Your task to perform on an android device: Search for Italian restaurants on Maps Image 0: 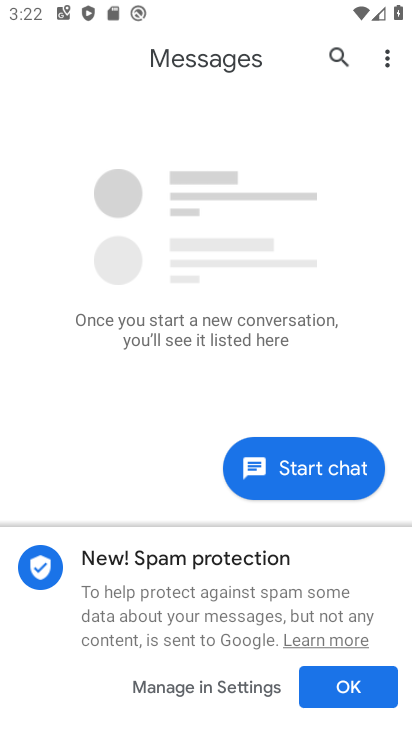
Step 0: press home button
Your task to perform on an android device: Search for Italian restaurants on Maps Image 1: 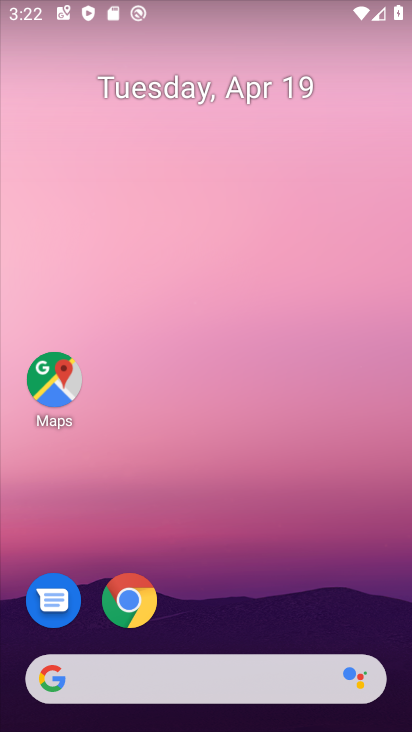
Step 1: click (67, 382)
Your task to perform on an android device: Search for Italian restaurants on Maps Image 2: 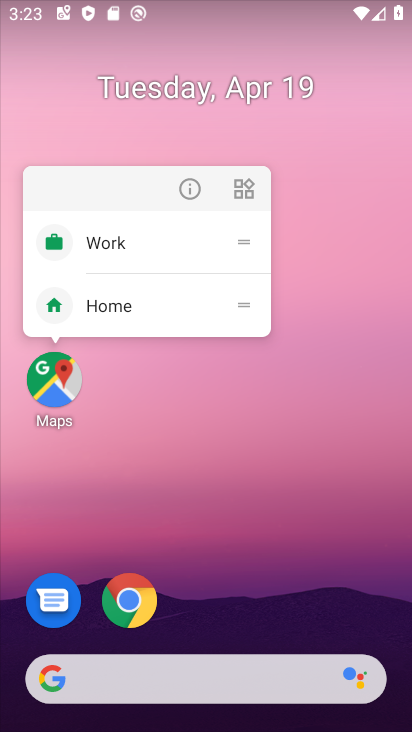
Step 2: click (119, 322)
Your task to perform on an android device: Search for Italian restaurants on Maps Image 3: 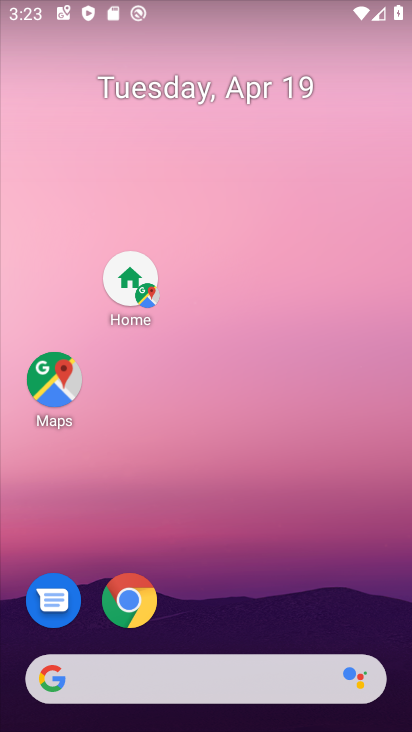
Step 3: drag from (147, 280) to (193, 44)
Your task to perform on an android device: Search for Italian restaurants on Maps Image 4: 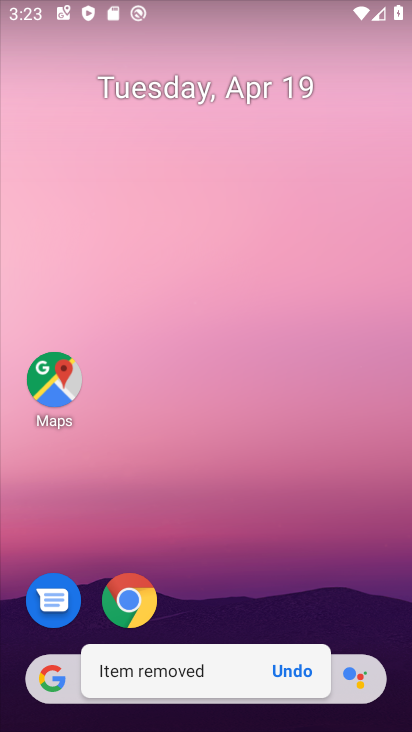
Step 4: click (61, 384)
Your task to perform on an android device: Search for Italian restaurants on Maps Image 5: 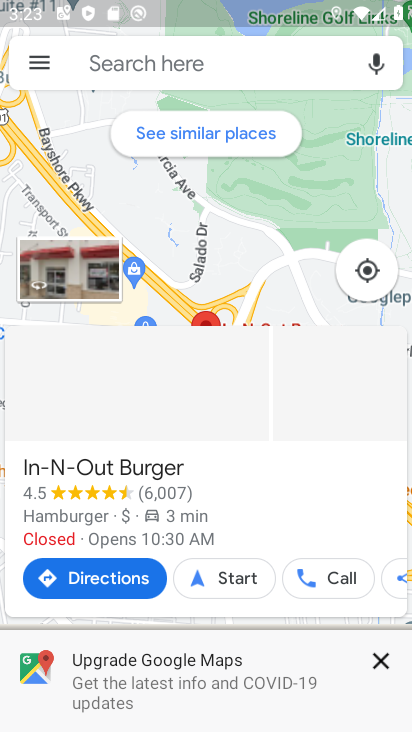
Step 5: click (181, 51)
Your task to perform on an android device: Search for Italian restaurants on Maps Image 6: 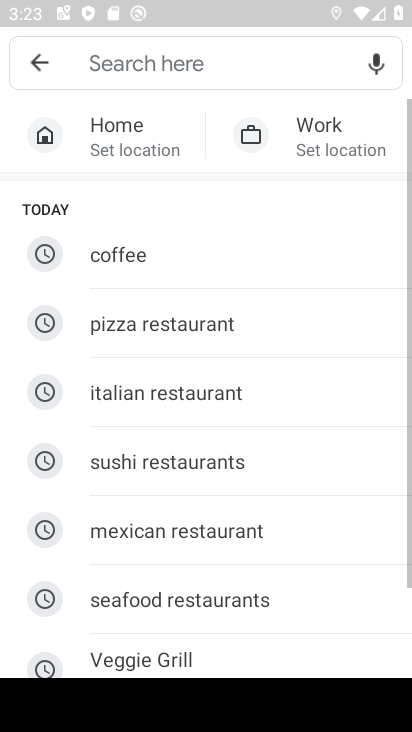
Step 6: click (115, 412)
Your task to perform on an android device: Search for Italian restaurants on Maps Image 7: 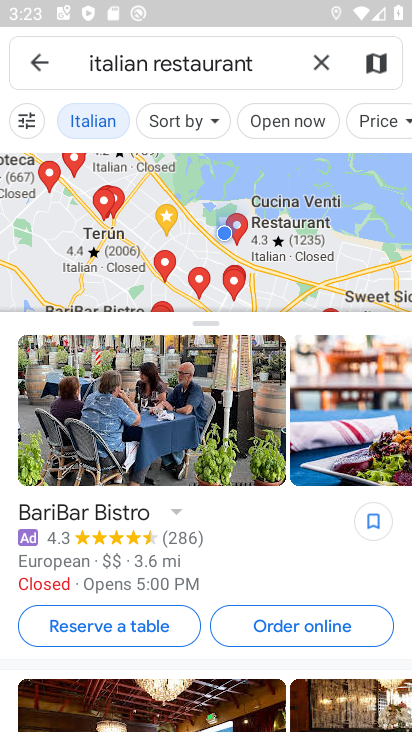
Step 7: task complete